Your task to perform on an android device: turn notification dots on Image 0: 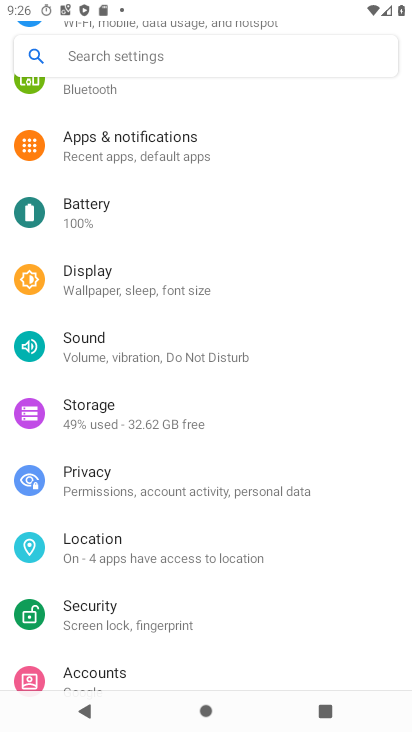
Step 0: click (176, 156)
Your task to perform on an android device: turn notification dots on Image 1: 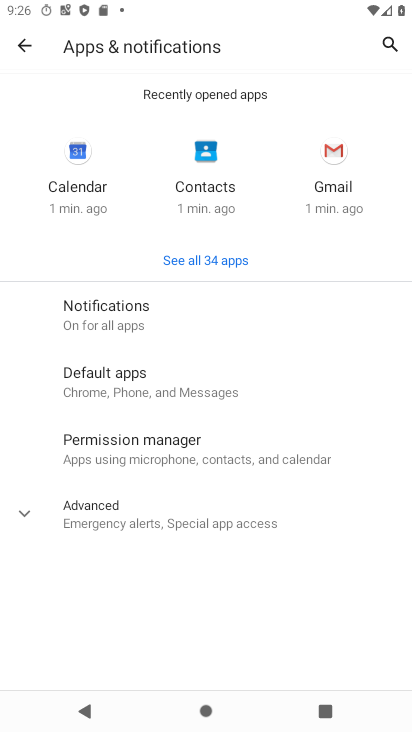
Step 1: click (147, 504)
Your task to perform on an android device: turn notification dots on Image 2: 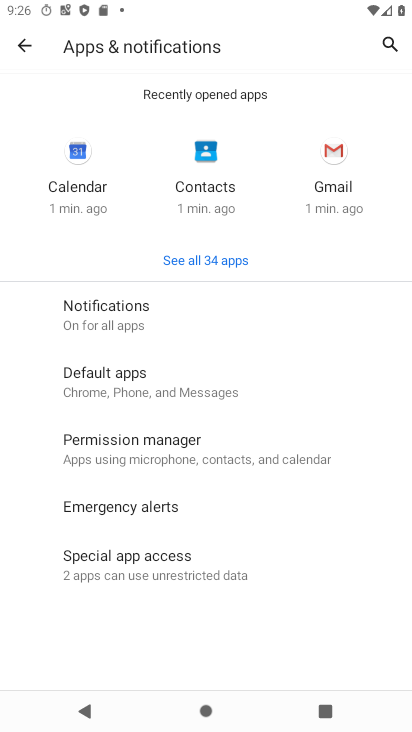
Step 2: click (197, 329)
Your task to perform on an android device: turn notification dots on Image 3: 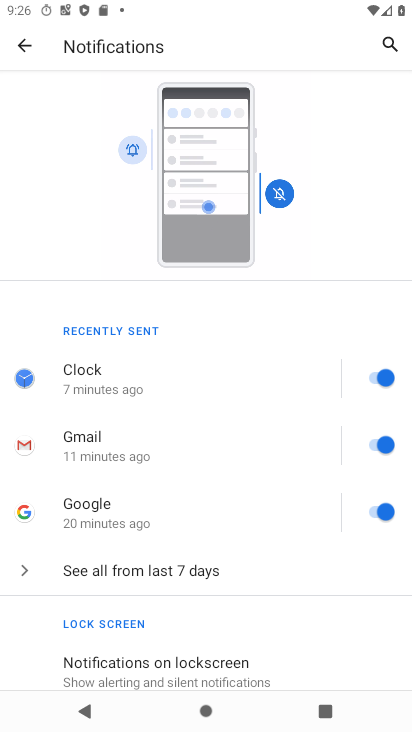
Step 3: drag from (142, 632) to (180, 64)
Your task to perform on an android device: turn notification dots on Image 4: 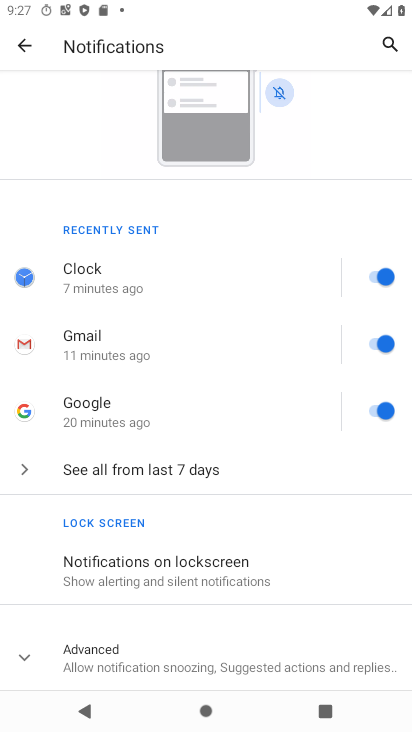
Step 4: drag from (192, 612) to (219, 234)
Your task to perform on an android device: turn notification dots on Image 5: 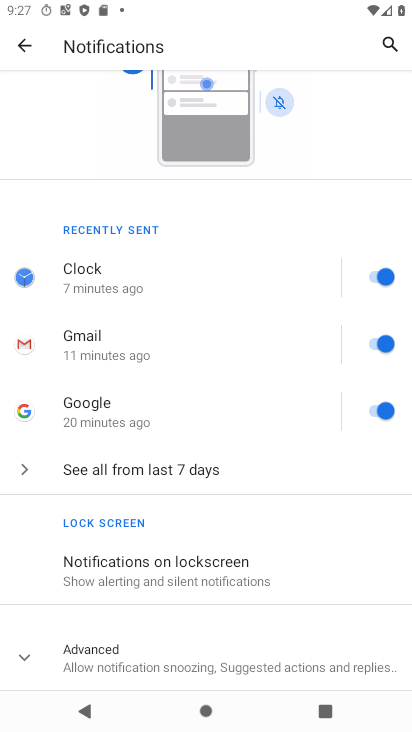
Step 5: click (180, 663)
Your task to perform on an android device: turn notification dots on Image 6: 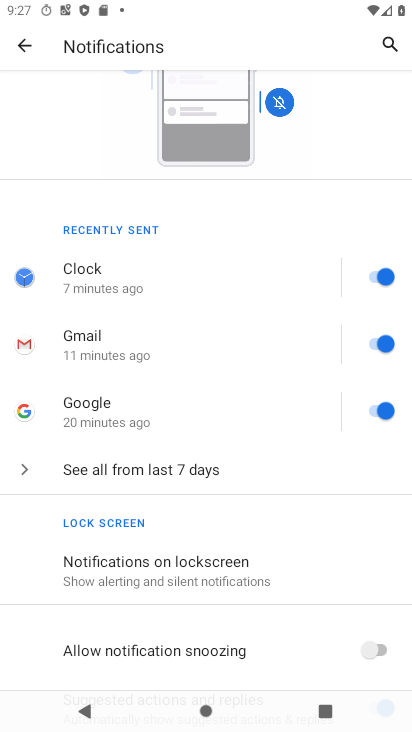
Step 6: task complete